Your task to perform on an android device: Open the map Image 0: 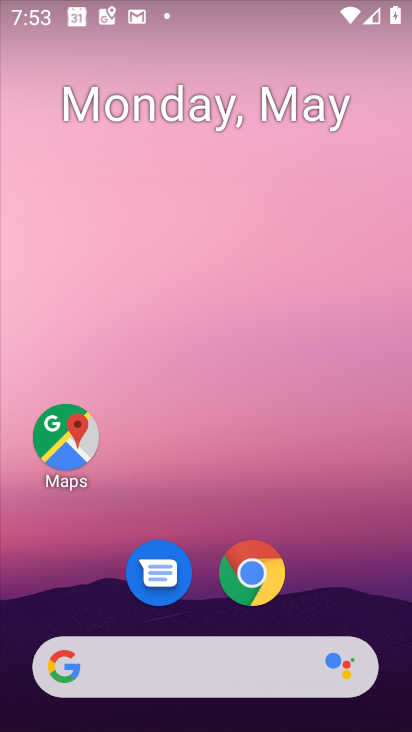
Step 0: drag from (156, 709) to (201, 283)
Your task to perform on an android device: Open the map Image 1: 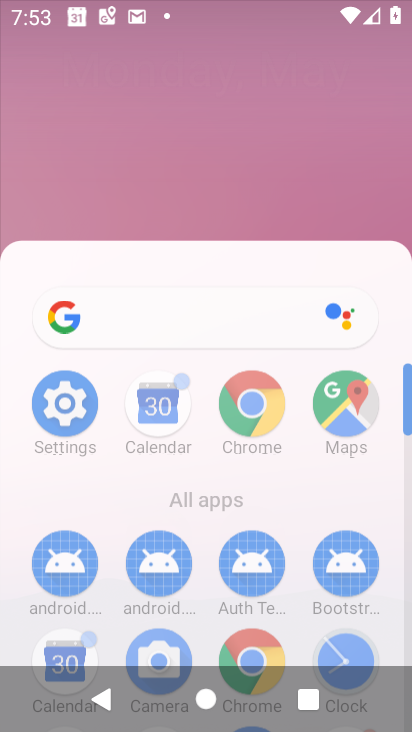
Step 1: click (207, 244)
Your task to perform on an android device: Open the map Image 2: 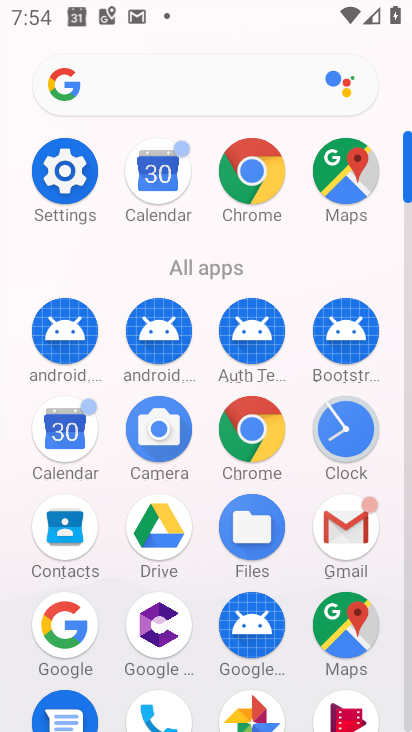
Step 2: click (334, 210)
Your task to perform on an android device: Open the map Image 3: 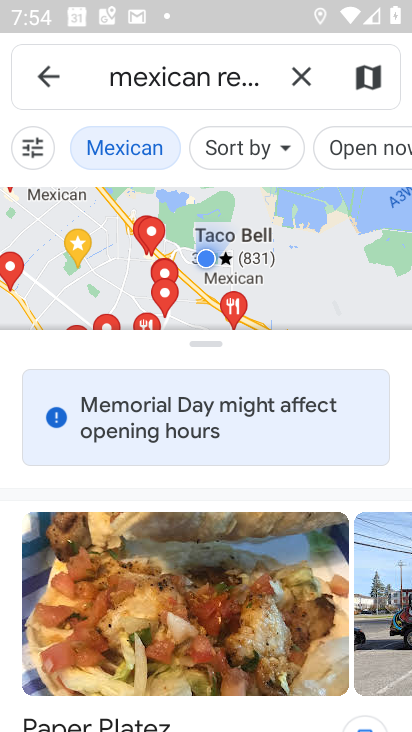
Step 3: task complete